Your task to perform on an android device: install app "Google Docs" Image 0: 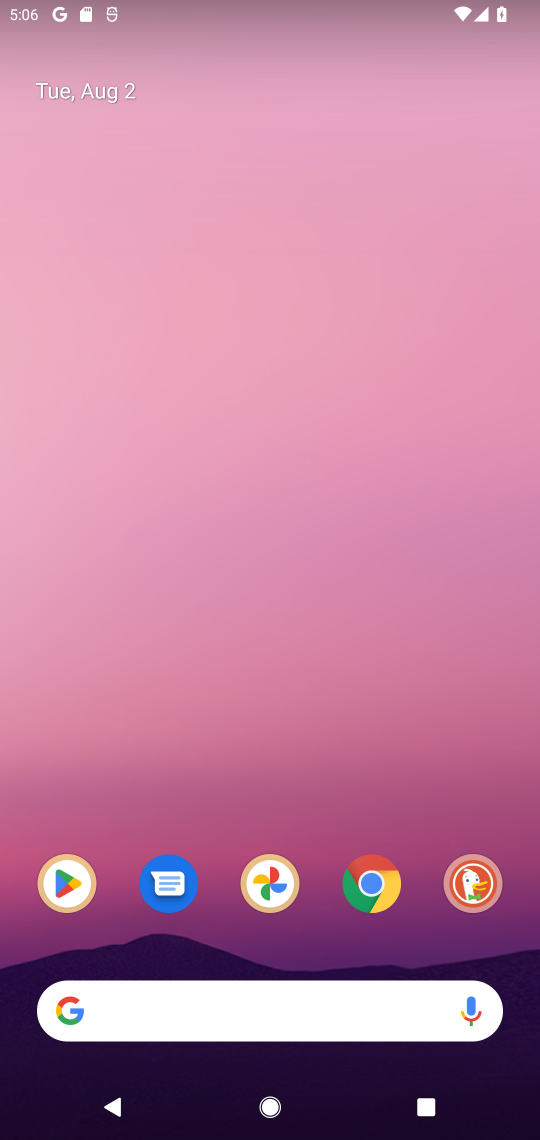
Step 0: drag from (274, 1032) to (535, 550)
Your task to perform on an android device: install app "Google Docs" Image 1: 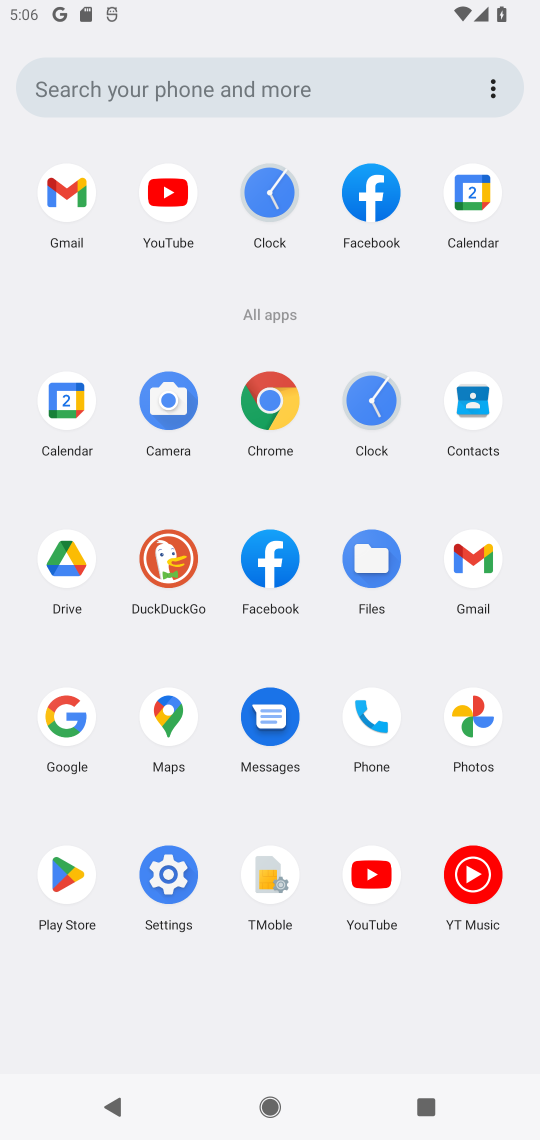
Step 1: click (82, 884)
Your task to perform on an android device: install app "Google Docs" Image 2: 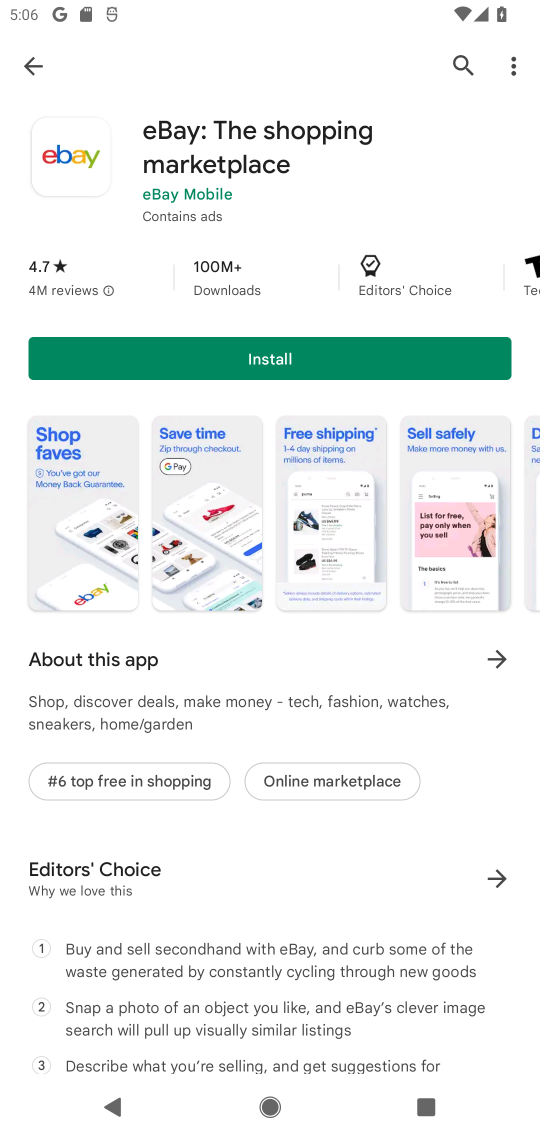
Step 2: click (27, 53)
Your task to perform on an android device: install app "Google Docs" Image 3: 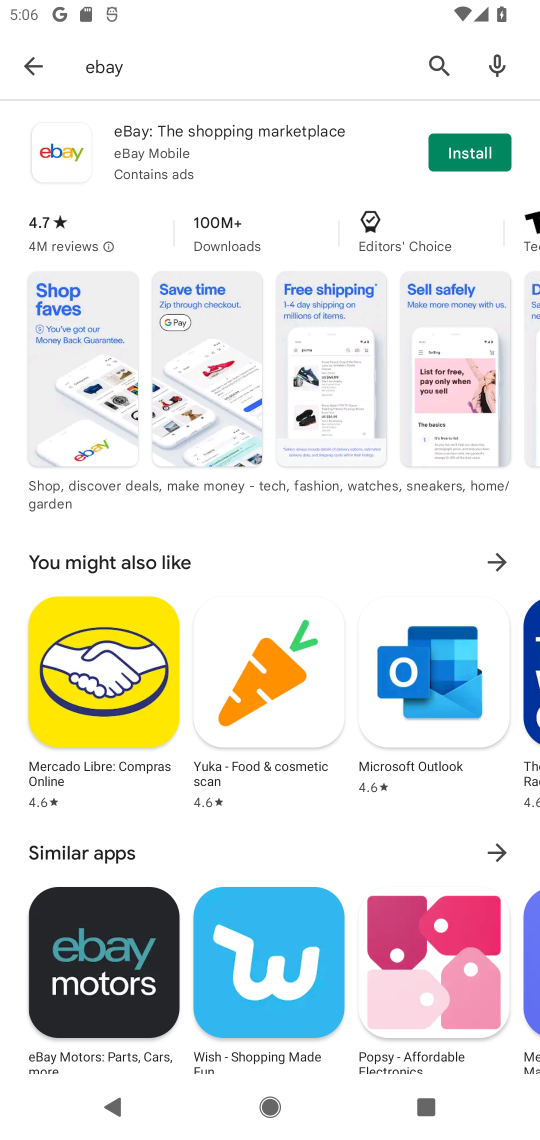
Step 3: click (39, 68)
Your task to perform on an android device: install app "Google Docs" Image 4: 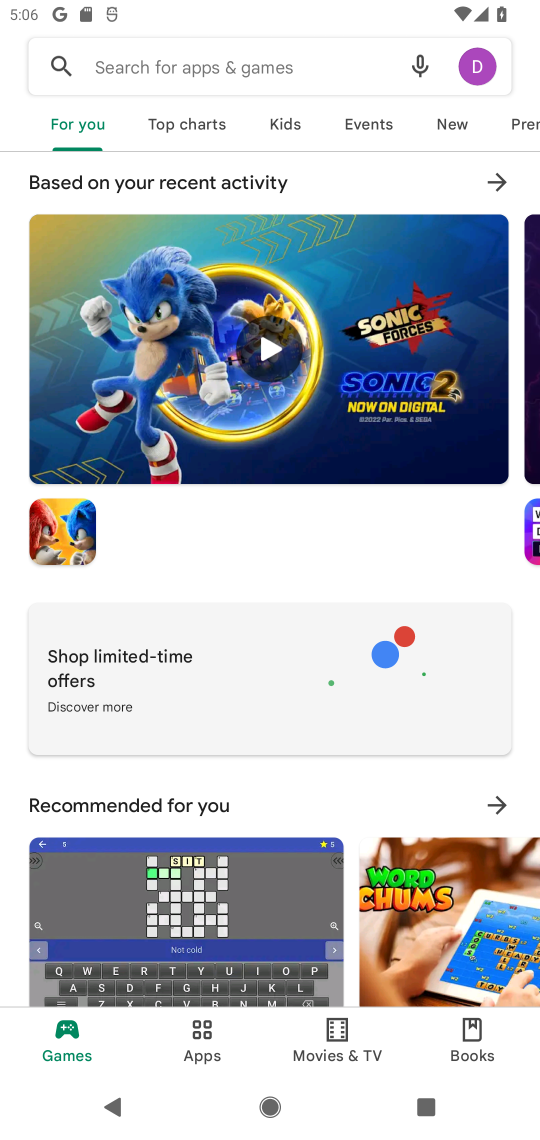
Step 4: click (230, 90)
Your task to perform on an android device: install app "Google Docs" Image 5: 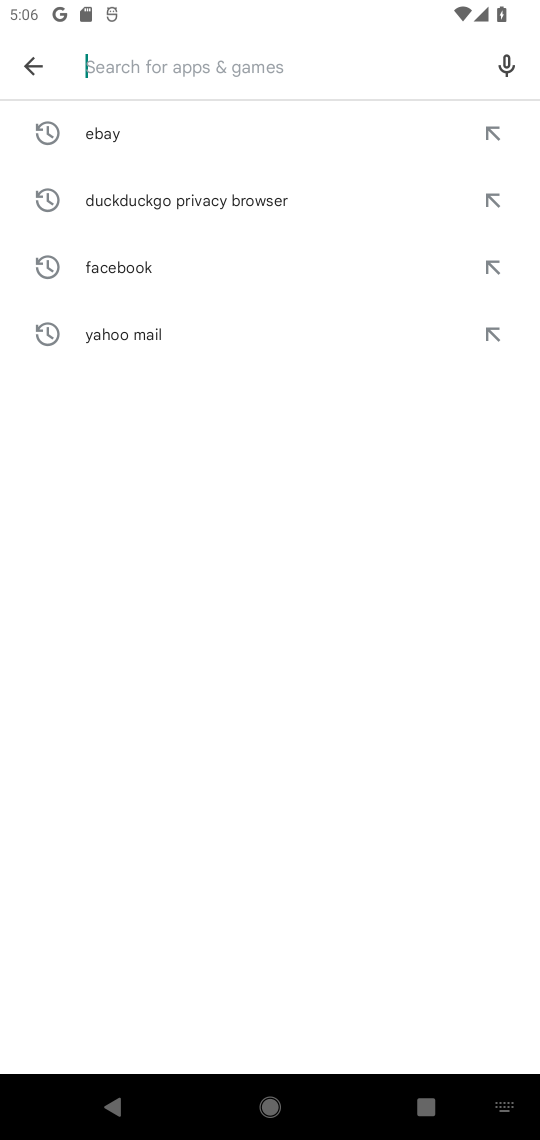
Step 5: type "Google Docs"
Your task to perform on an android device: install app "Google Docs" Image 6: 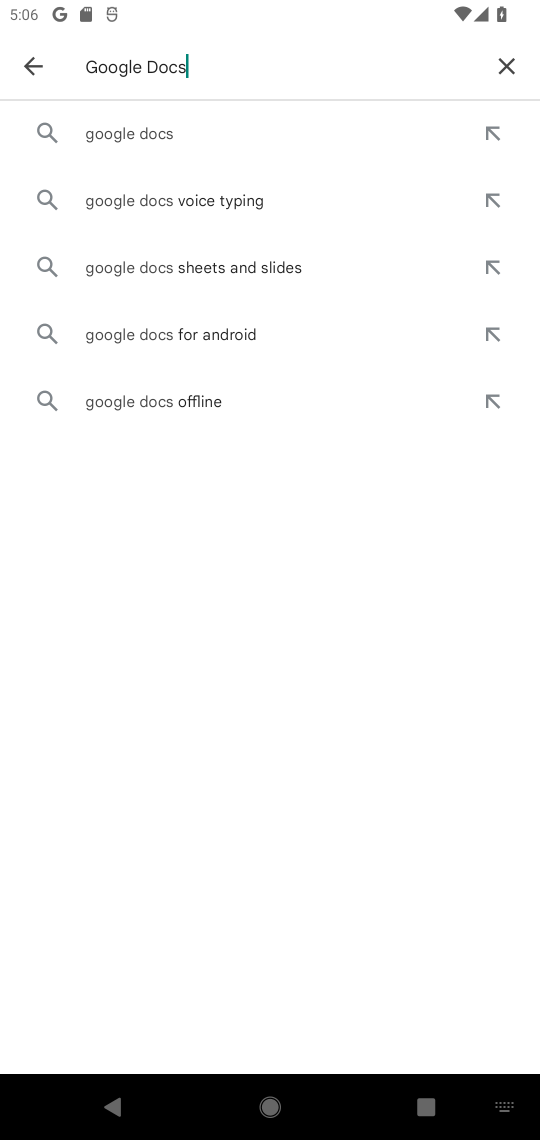
Step 6: click (158, 132)
Your task to perform on an android device: install app "Google Docs" Image 7: 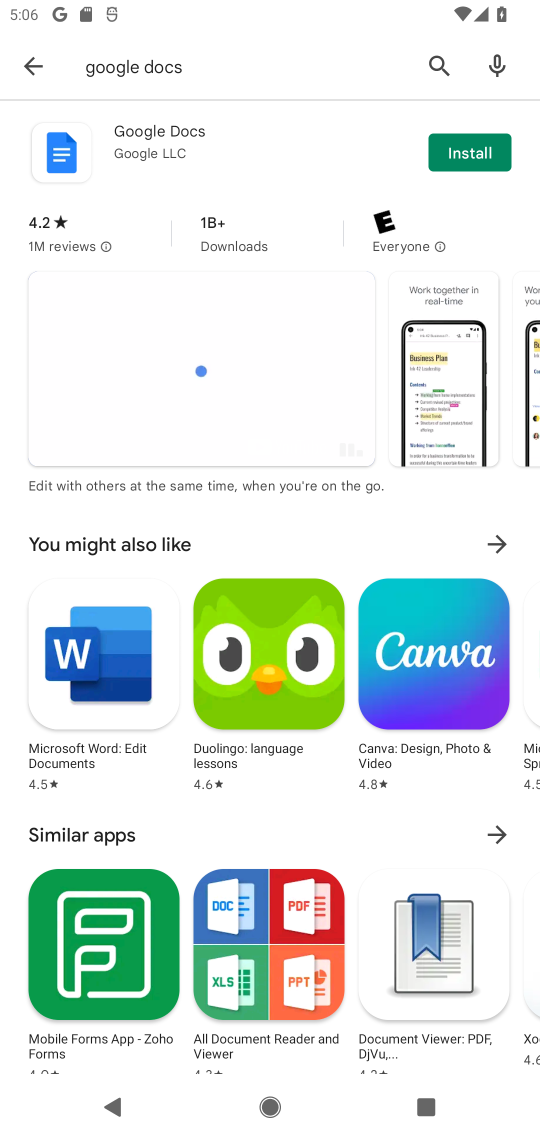
Step 7: click (465, 151)
Your task to perform on an android device: install app "Google Docs" Image 8: 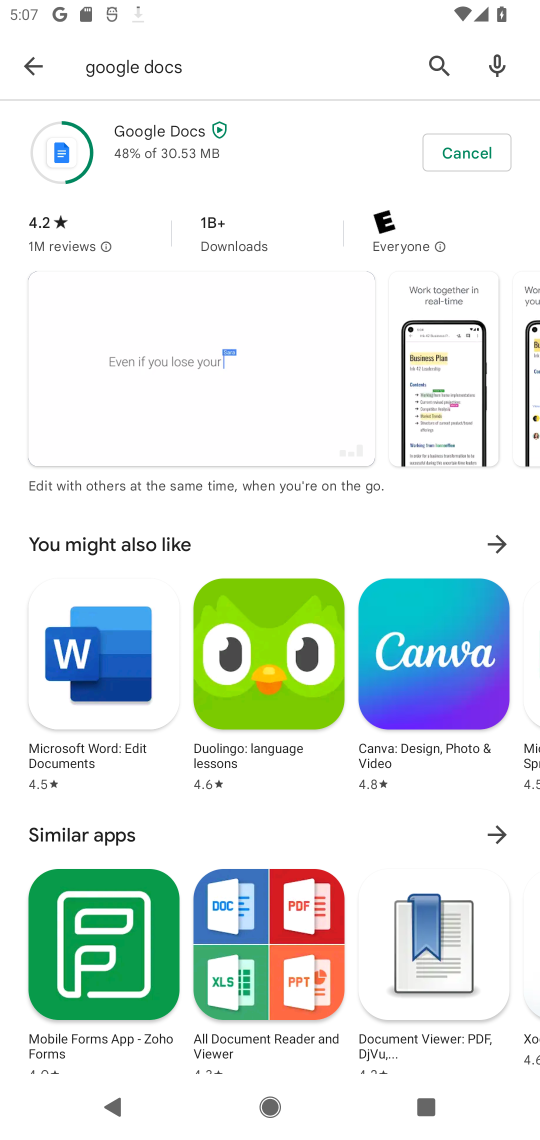
Step 8: drag from (417, 382) to (0, 362)
Your task to perform on an android device: install app "Google Docs" Image 9: 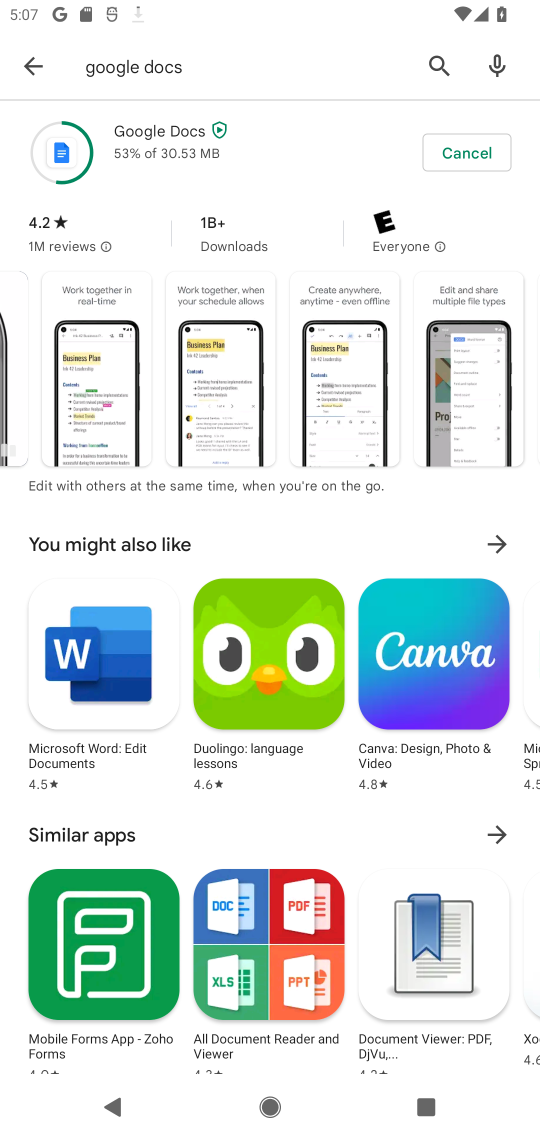
Step 9: drag from (439, 375) to (21, 331)
Your task to perform on an android device: install app "Google Docs" Image 10: 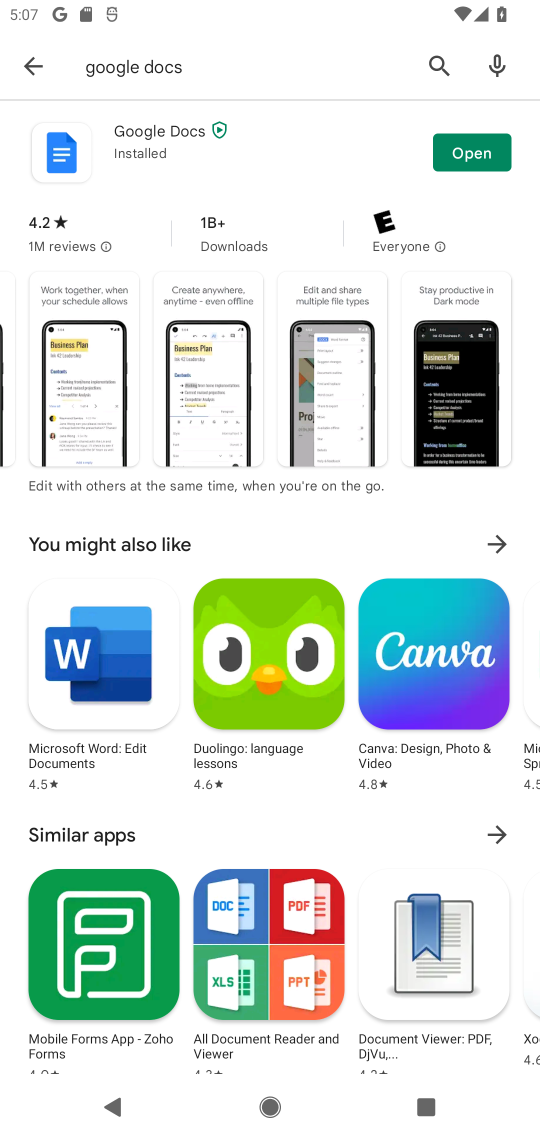
Step 10: click (498, 168)
Your task to perform on an android device: install app "Google Docs" Image 11: 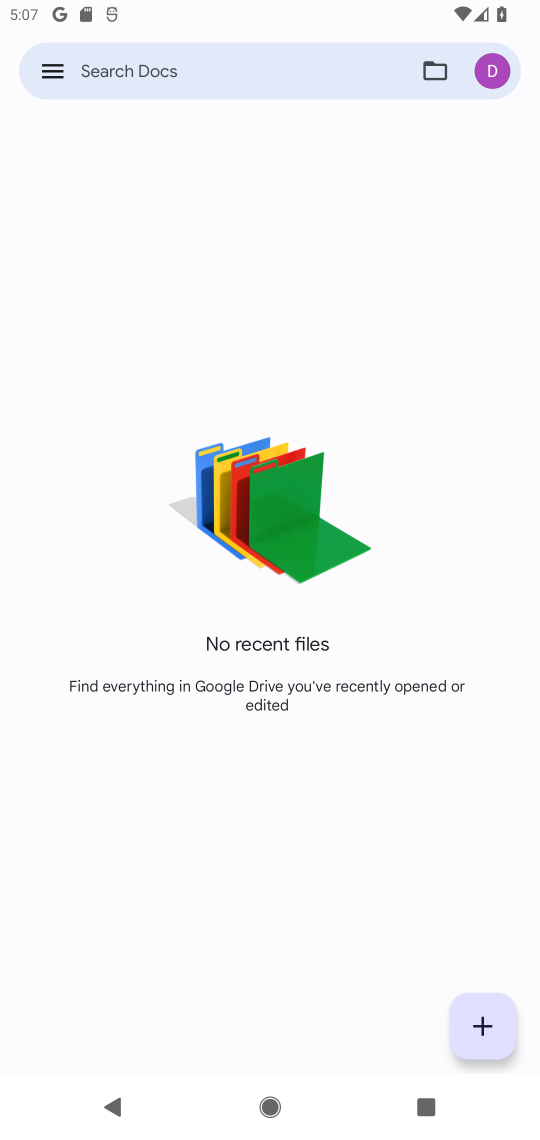
Step 11: task complete